Your task to perform on an android device: Go to privacy settings Image 0: 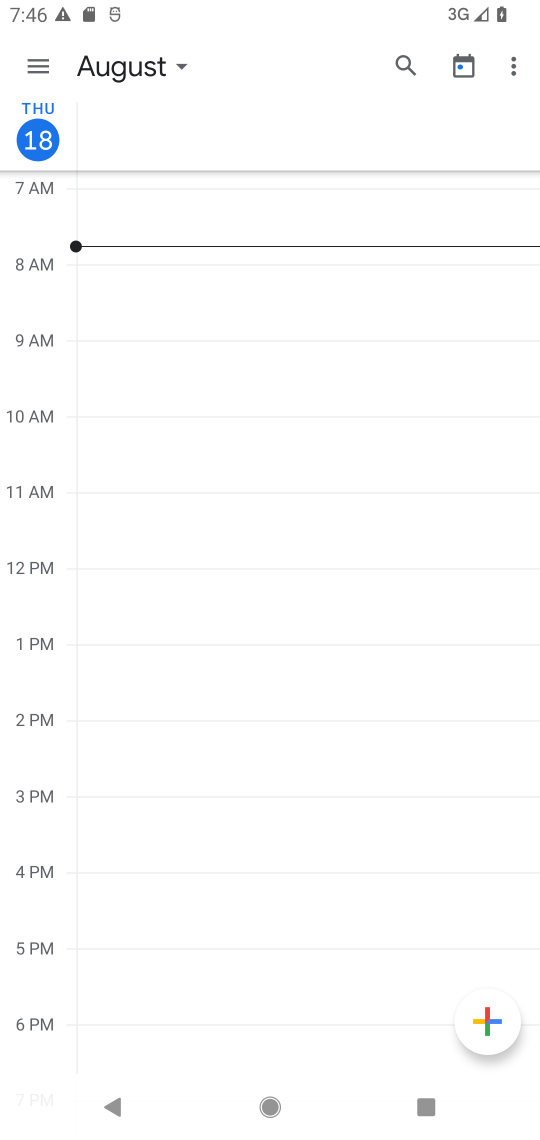
Step 0: press home button
Your task to perform on an android device: Go to privacy settings Image 1: 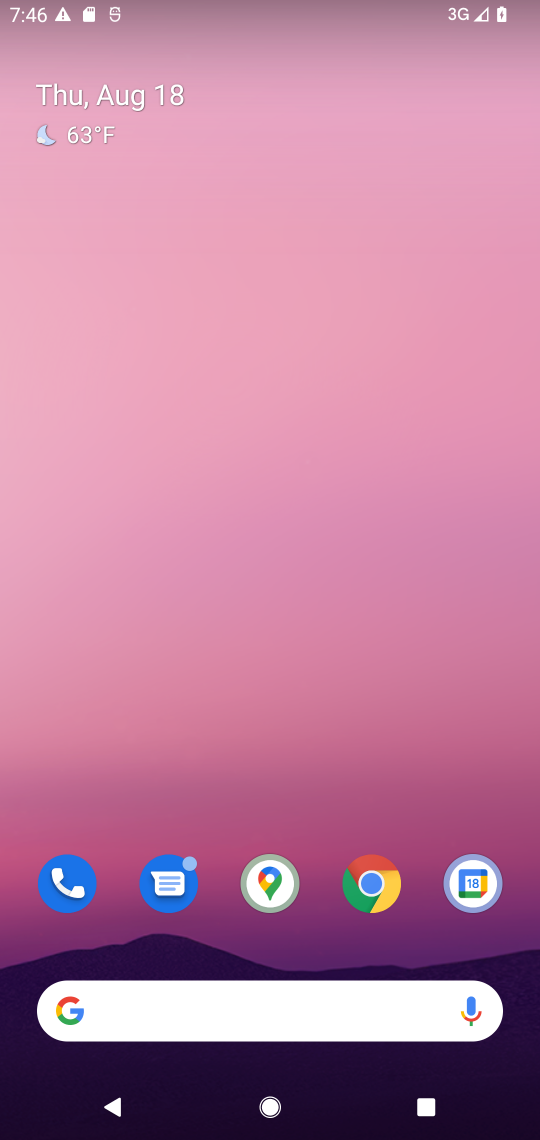
Step 1: click (382, 897)
Your task to perform on an android device: Go to privacy settings Image 2: 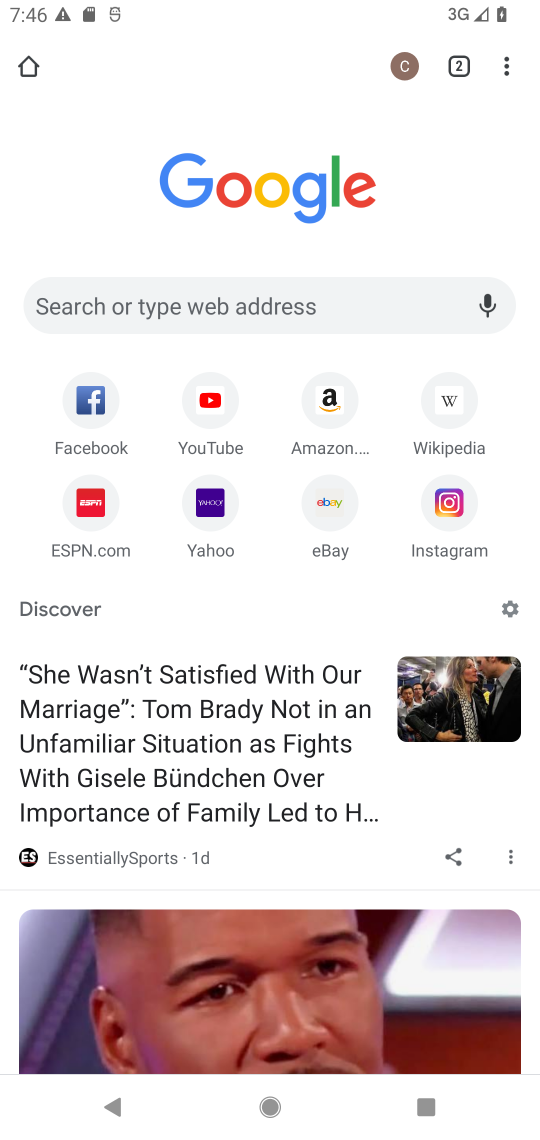
Step 2: click (509, 86)
Your task to perform on an android device: Go to privacy settings Image 3: 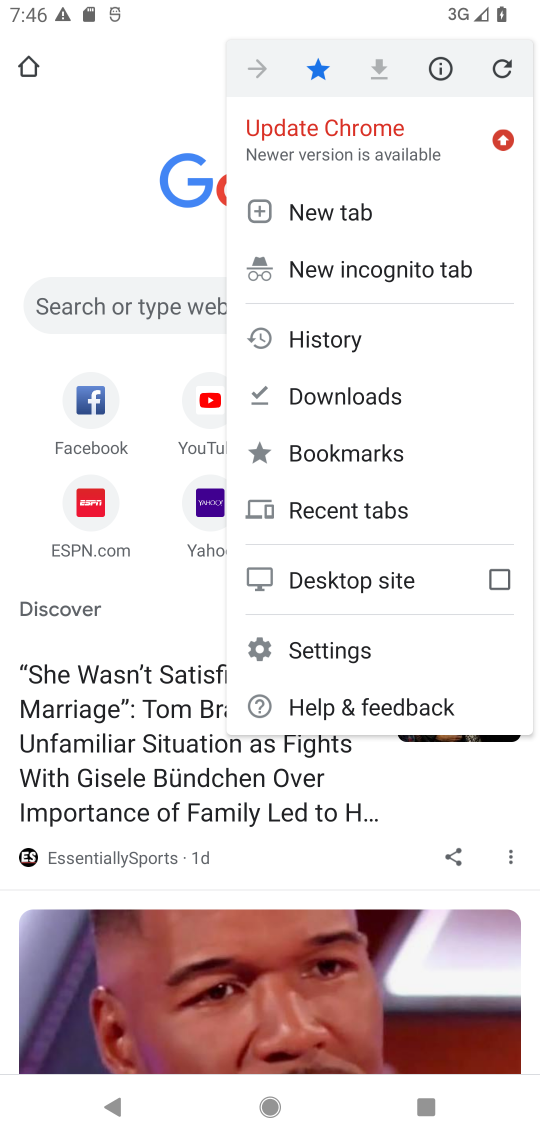
Step 3: click (317, 665)
Your task to perform on an android device: Go to privacy settings Image 4: 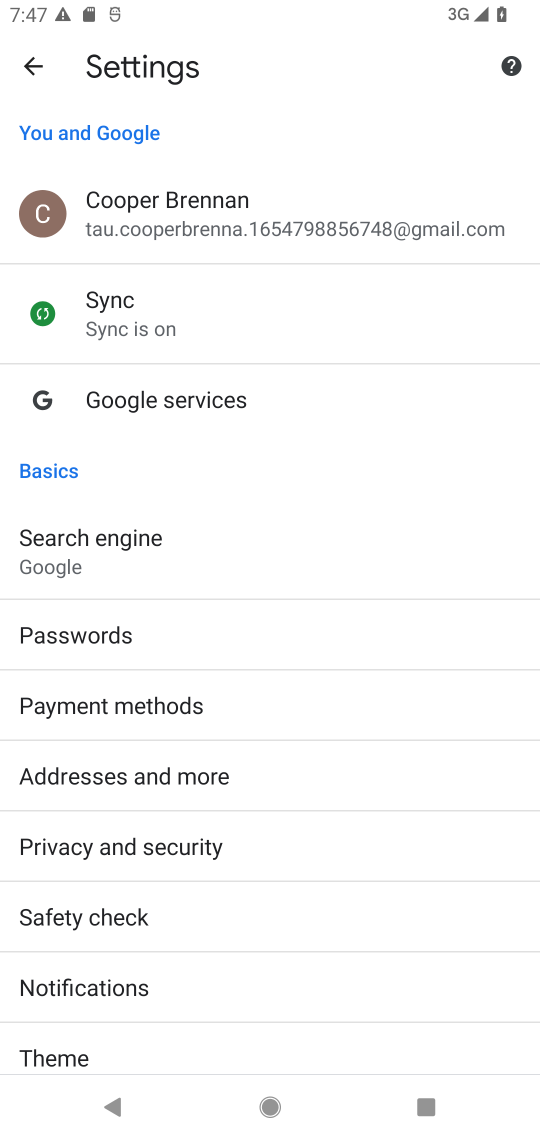
Step 4: click (142, 856)
Your task to perform on an android device: Go to privacy settings Image 5: 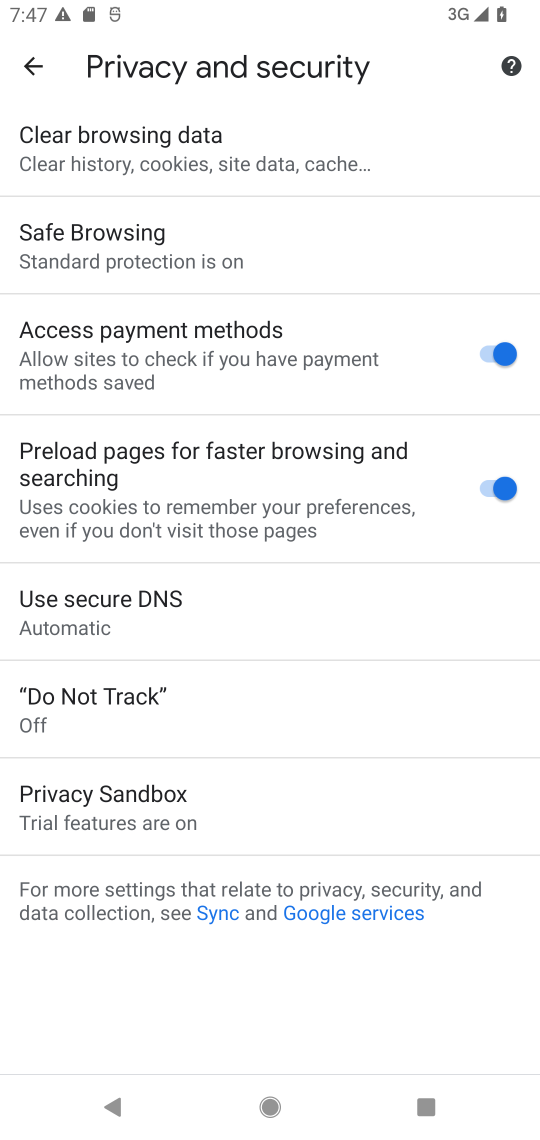
Step 5: task complete